Your task to perform on an android device: Search for vegetarian restaurants on Maps Image 0: 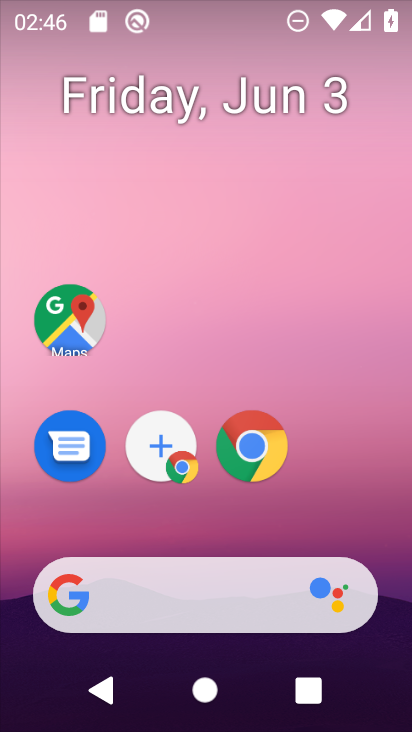
Step 0: click (73, 322)
Your task to perform on an android device: Search for vegetarian restaurants on Maps Image 1: 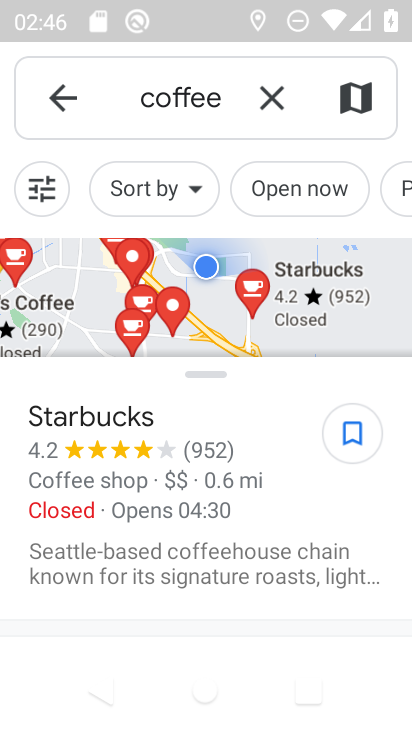
Step 1: click (269, 103)
Your task to perform on an android device: Search for vegetarian restaurants on Maps Image 2: 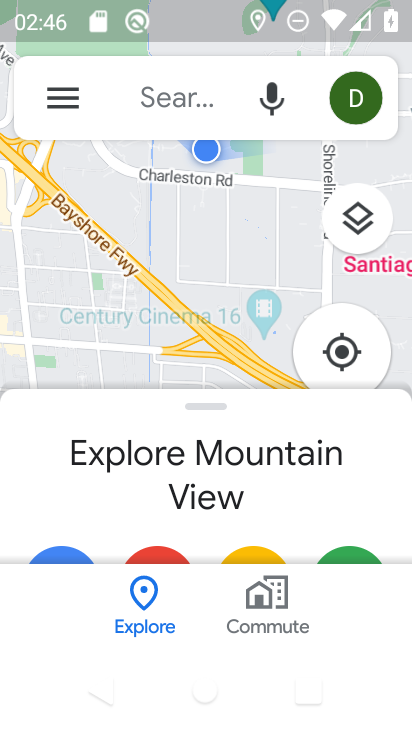
Step 2: click (191, 88)
Your task to perform on an android device: Search for vegetarian restaurants on Maps Image 3: 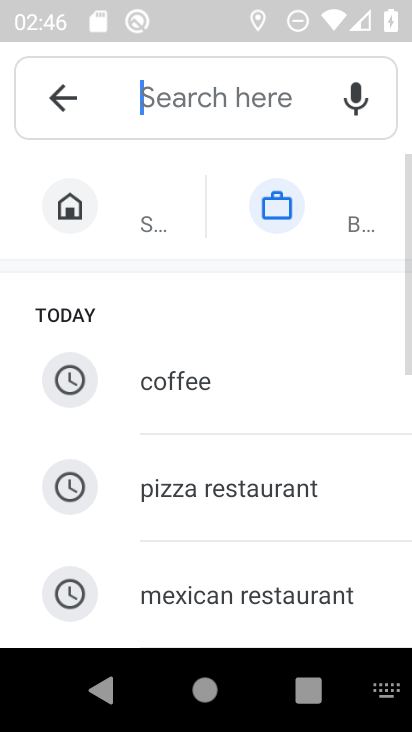
Step 3: drag from (303, 585) to (206, 225)
Your task to perform on an android device: Search for vegetarian restaurants on Maps Image 4: 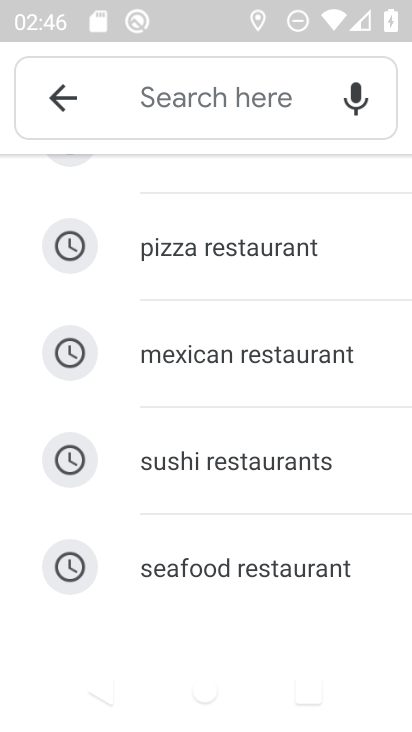
Step 4: type "vegetarian rest"
Your task to perform on an android device: Search for vegetarian restaurants on Maps Image 5: 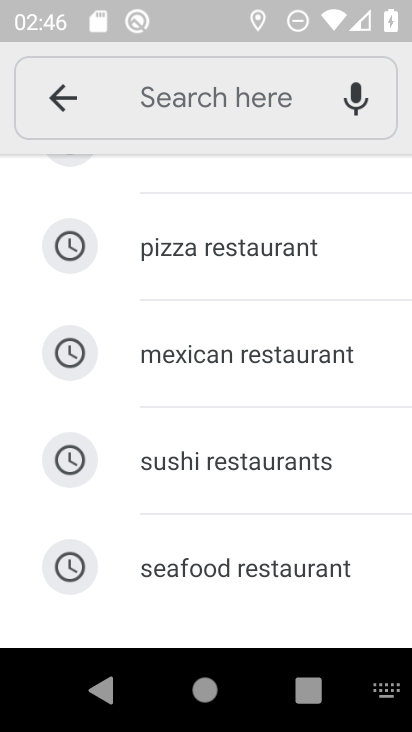
Step 5: drag from (305, 212) to (224, 679)
Your task to perform on an android device: Search for vegetarian restaurants on Maps Image 6: 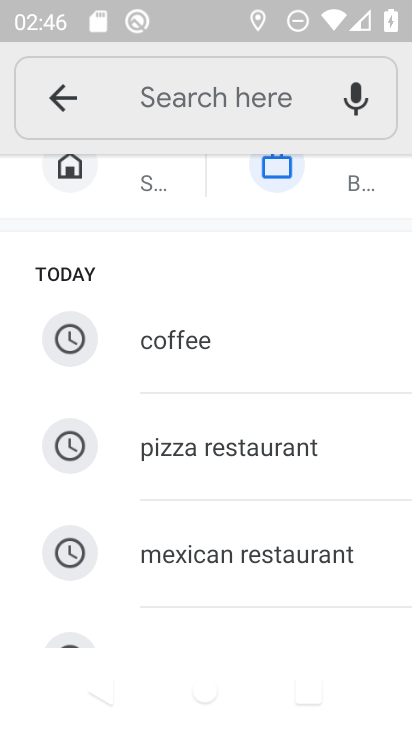
Step 6: click (198, 89)
Your task to perform on an android device: Search for vegetarian restaurants on Maps Image 7: 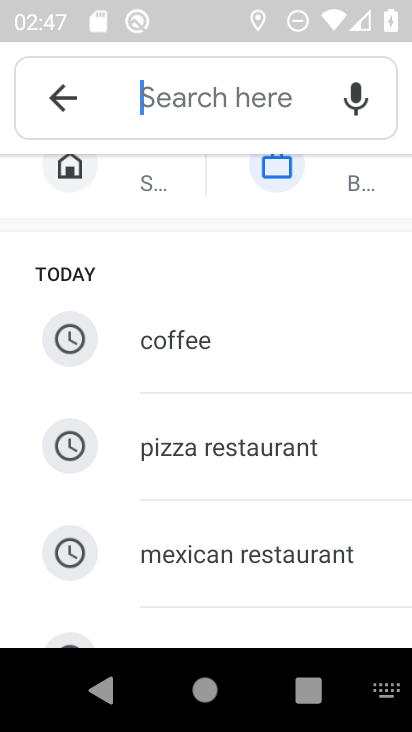
Step 7: type "vegetarian res"
Your task to perform on an android device: Search for vegetarian restaurants on Maps Image 8: 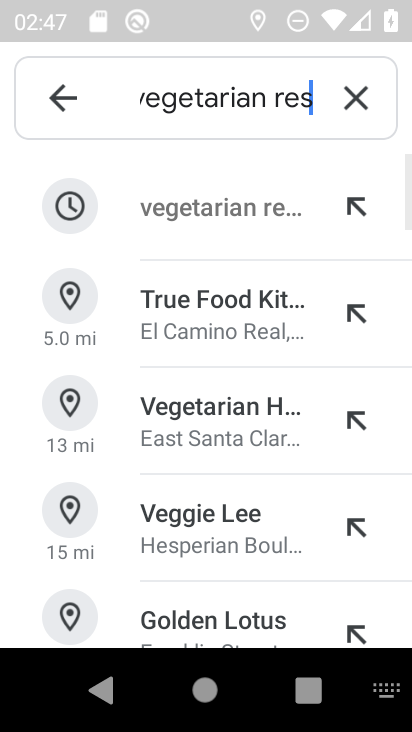
Step 8: click (192, 211)
Your task to perform on an android device: Search for vegetarian restaurants on Maps Image 9: 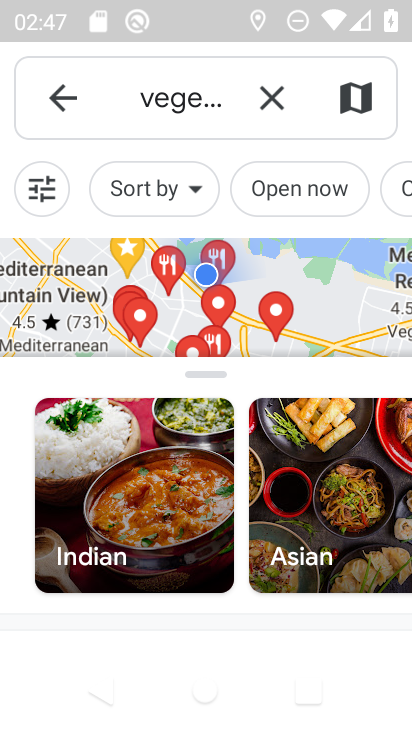
Step 9: task complete